Your task to perform on an android device: Is it going to rain tomorrow? Image 0: 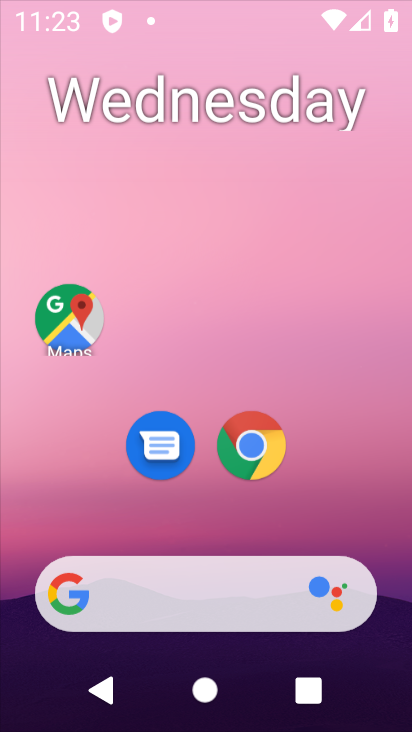
Step 0: click (180, 120)
Your task to perform on an android device: Is it going to rain tomorrow? Image 1: 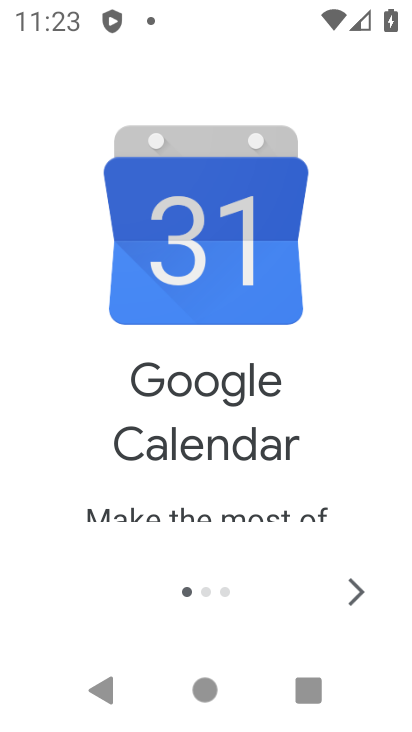
Step 1: press home button
Your task to perform on an android device: Is it going to rain tomorrow? Image 2: 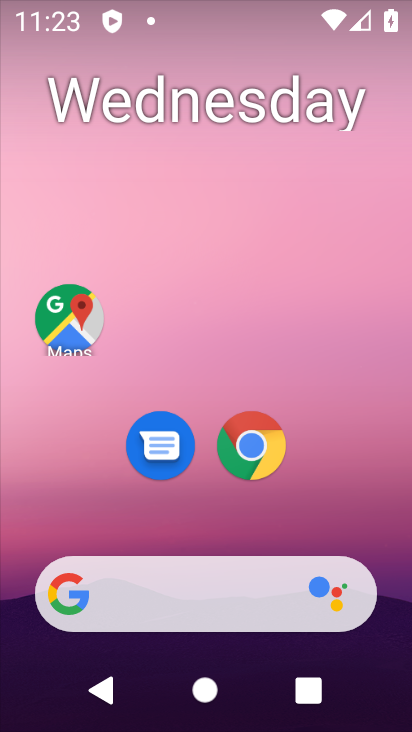
Step 2: drag from (343, 535) to (300, 246)
Your task to perform on an android device: Is it going to rain tomorrow? Image 3: 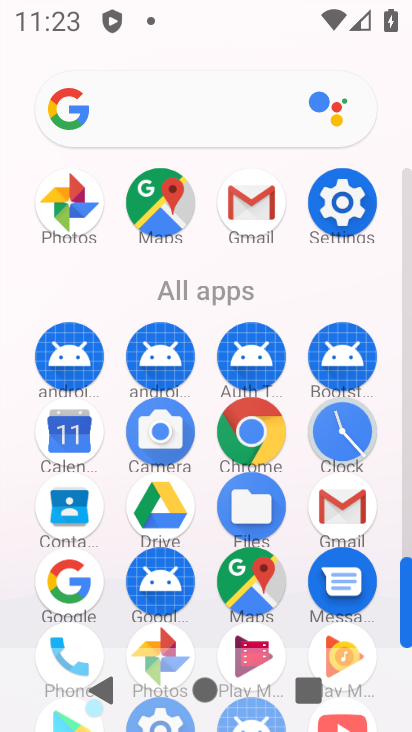
Step 3: press home button
Your task to perform on an android device: Is it going to rain tomorrow? Image 4: 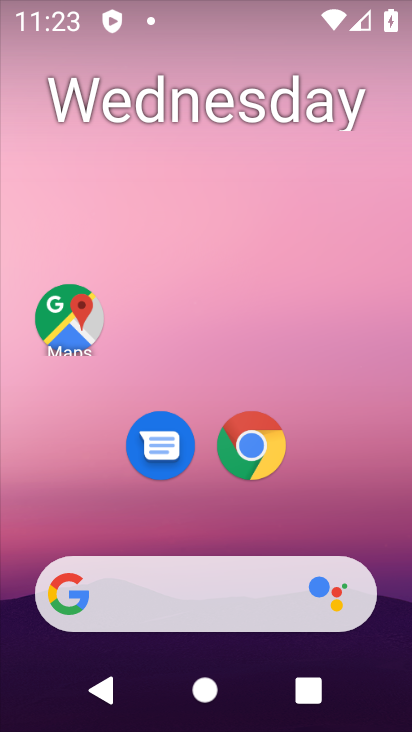
Step 4: drag from (337, 386) to (325, 179)
Your task to perform on an android device: Is it going to rain tomorrow? Image 5: 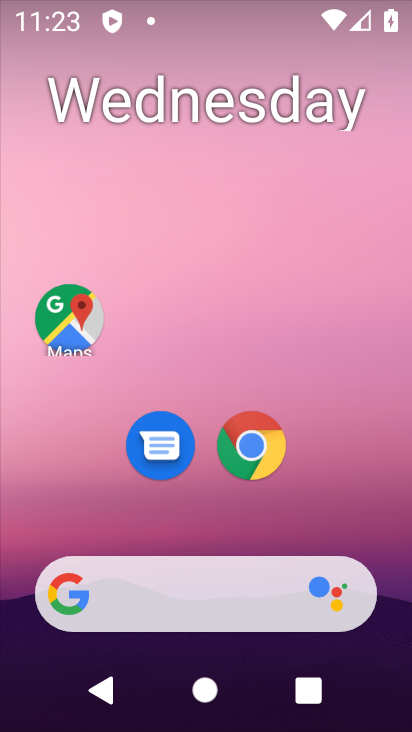
Step 5: click (179, 583)
Your task to perform on an android device: Is it going to rain tomorrow? Image 6: 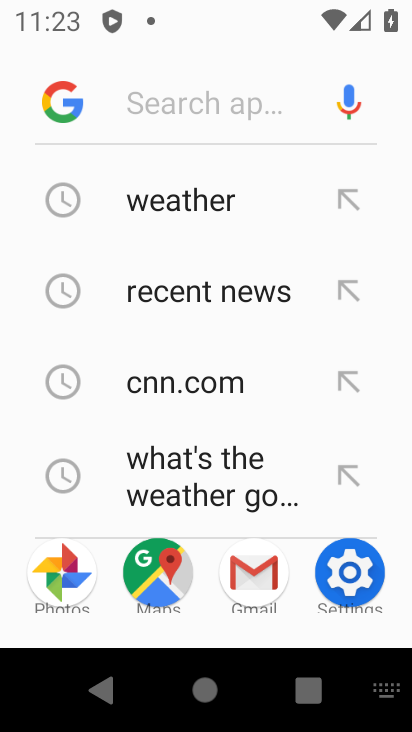
Step 6: click (176, 199)
Your task to perform on an android device: Is it going to rain tomorrow? Image 7: 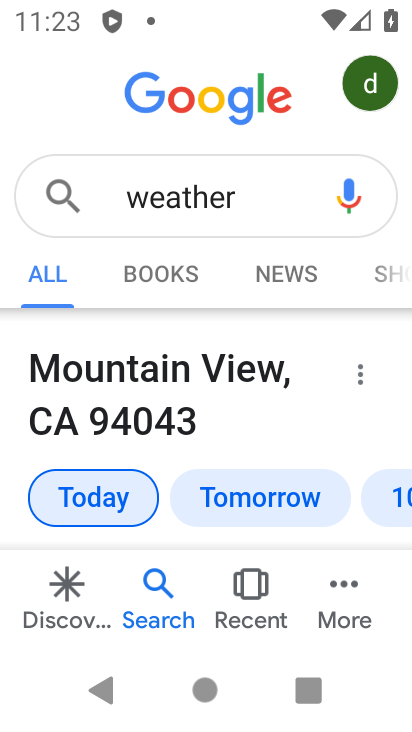
Step 7: drag from (166, 539) to (172, 330)
Your task to perform on an android device: Is it going to rain tomorrow? Image 8: 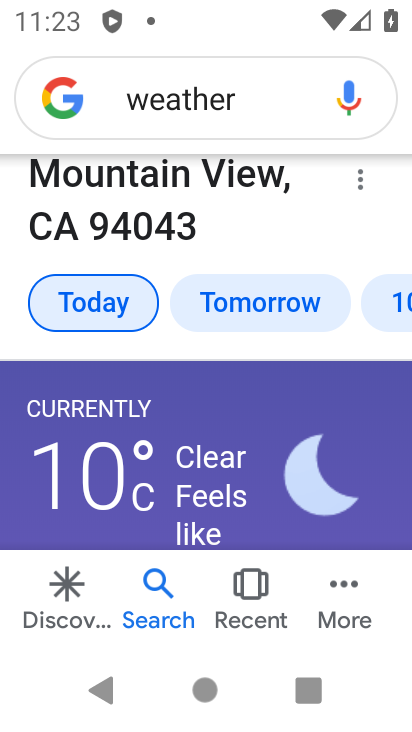
Step 8: click (255, 298)
Your task to perform on an android device: Is it going to rain tomorrow? Image 9: 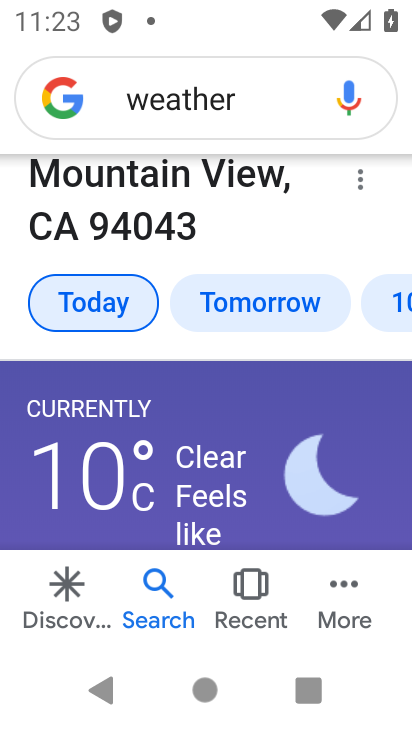
Step 9: click (254, 299)
Your task to perform on an android device: Is it going to rain tomorrow? Image 10: 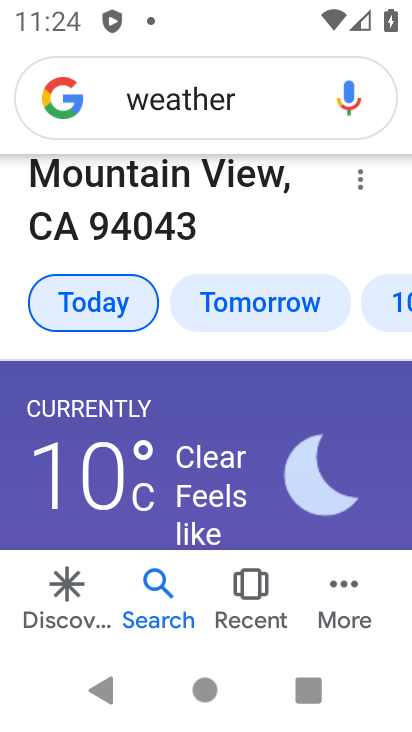
Step 10: click (238, 304)
Your task to perform on an android device: Is it going to rain tomorrow? Image 11: 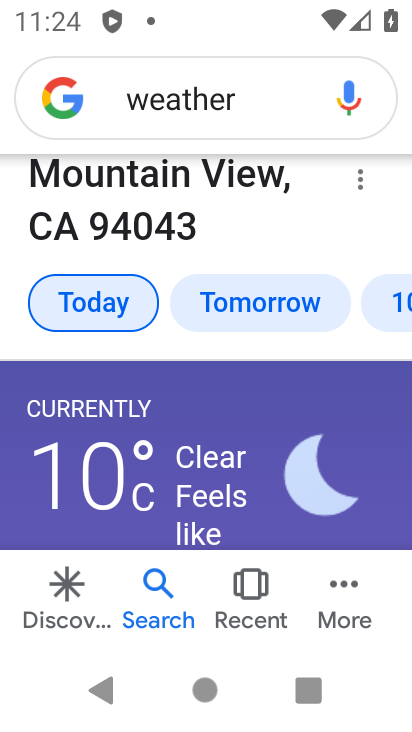
Step 11: click (238, 304)
Your task to perform on an android device: Is it going to rain tomorrow? Image 12: 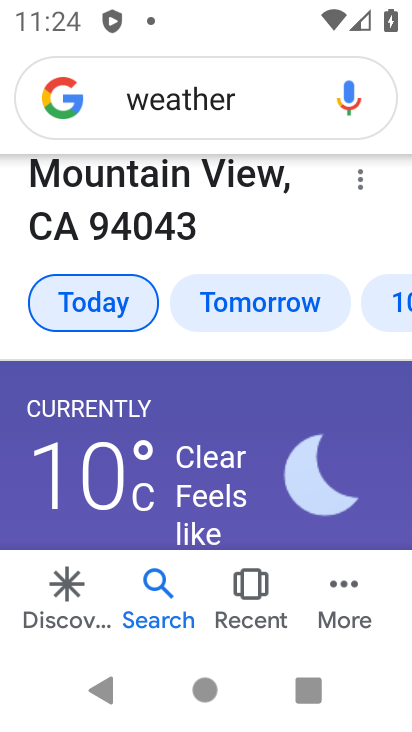
Step 12: click (250, 293)
Your task to perform on an android device: Is it going to rain tomorrow? Image 13: 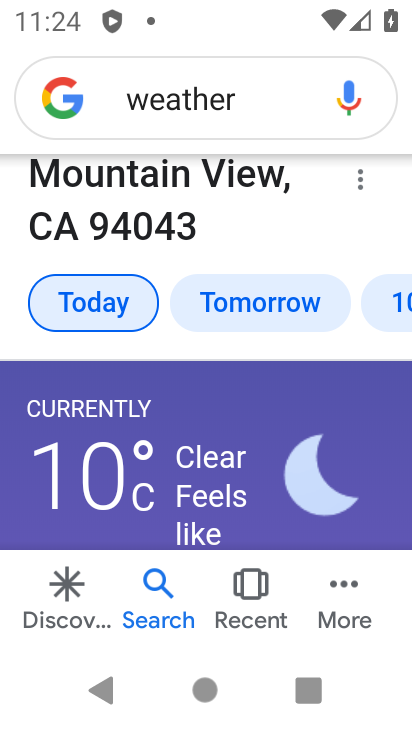
Step 13: click (249, 296)
Your task to perform on an android device: Is it going to rain tomorrow? Image 14: 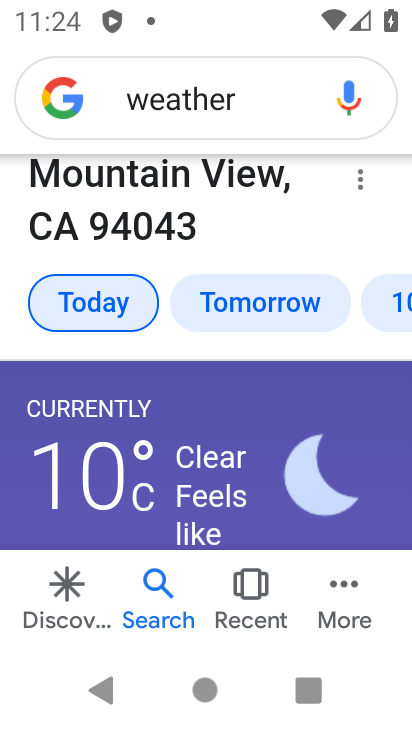
Step 14: task complete